Your task to perform on an android device: Open battery settings Image 0: 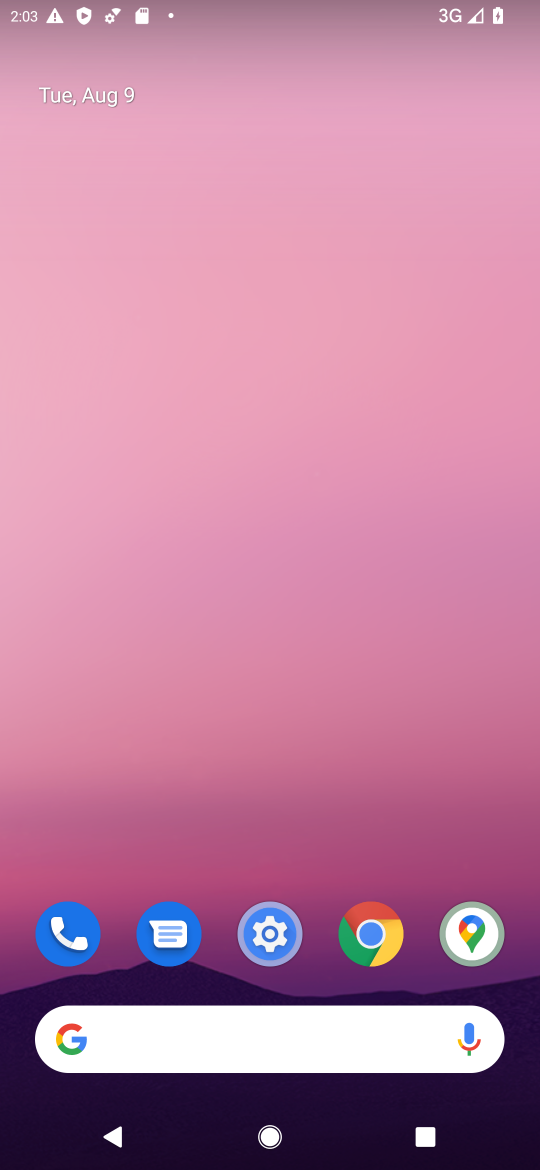
Step 0: click (276, 956)
Your task to perform on an android device: Open battery settings Image 1: 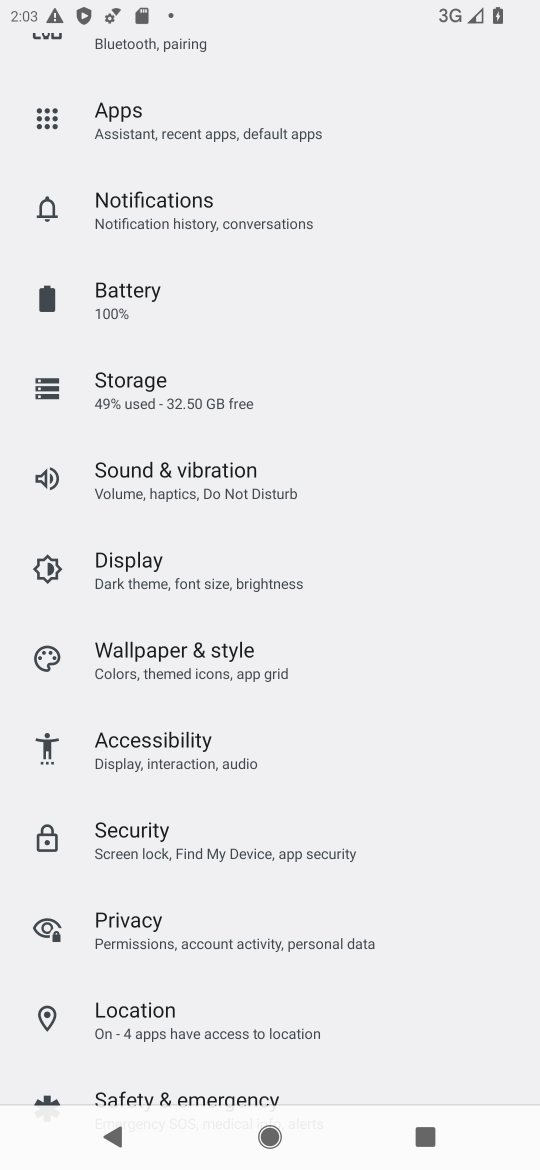
Step 1: click (213, 288)
Your task to perform on an android device: Open battery settings Image 2: 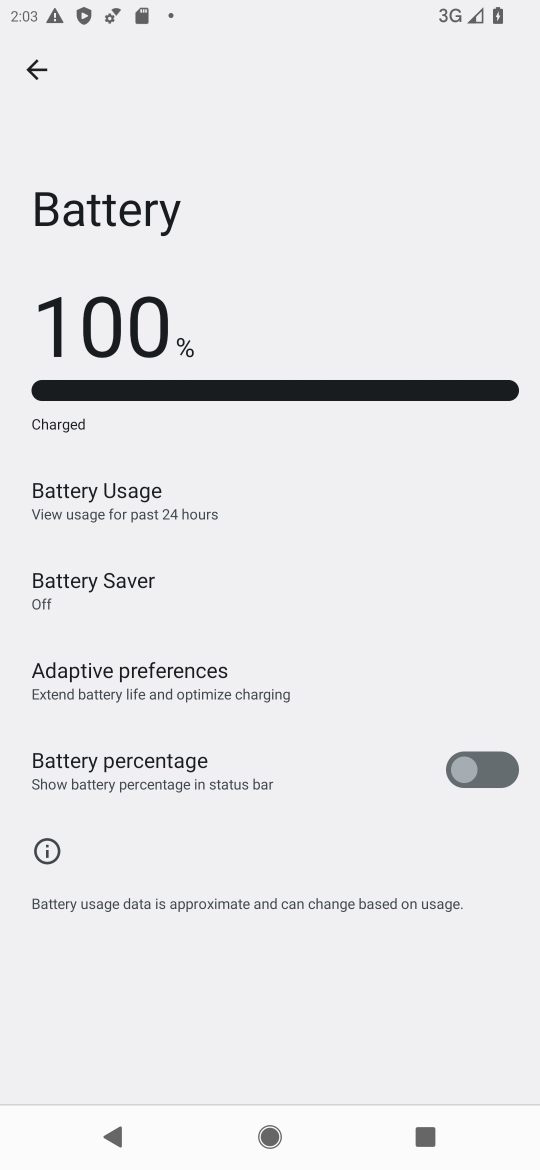
Step 2: task complete